Your task to perform on an android device: turn off picture-in-picture Image 0: 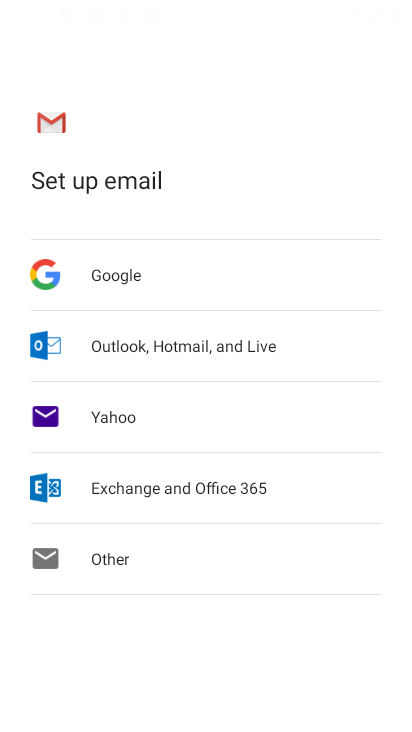
Step 0: press home button
Your task to perform on an android device: turn off picture-in-picture Image 1: 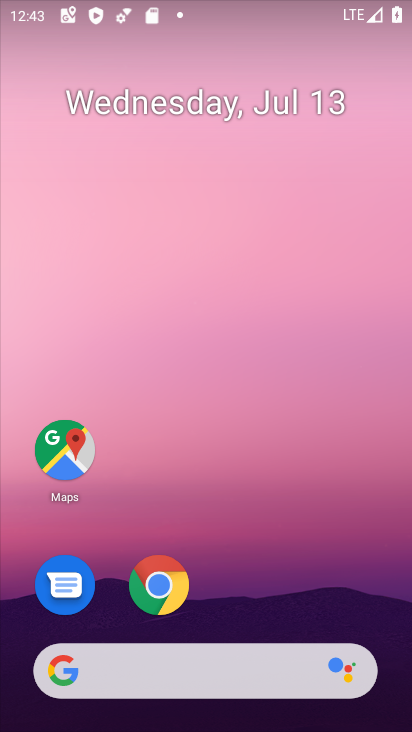
Step 1: drag from (177, 627) to (165, 194)
Your task to perform on an android device: turn off picture-in-picture Image 2: 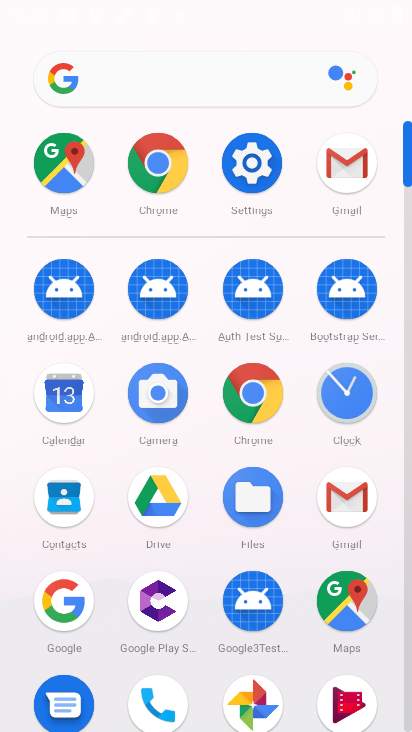
Step 2: click (255, 182)
Your task to perform on an android device: turn off picture-in-picture Image 3: 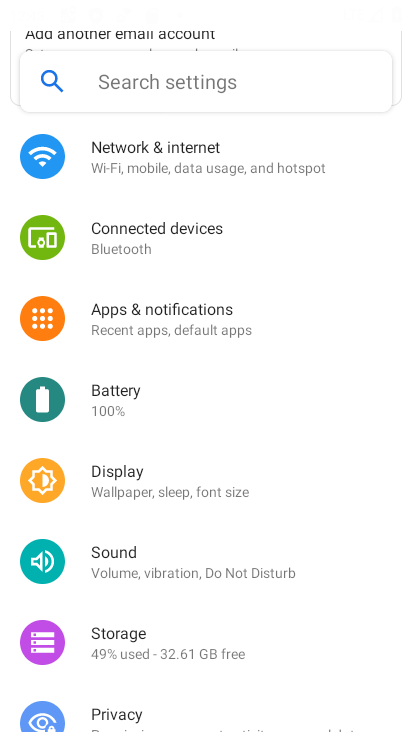
Step 3: click (147, 332)
Your task to perform on an android device: turn off picture-in-picture Image 4: 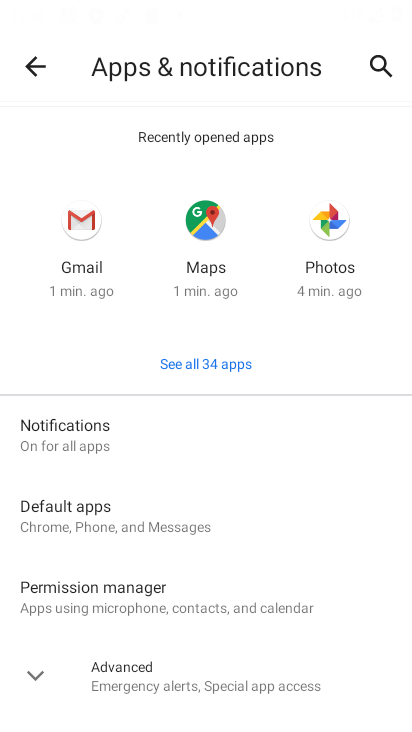
Step 4: click (65, 431)
Your task to perform on an android device: turn off picture-in-picture Image 5: 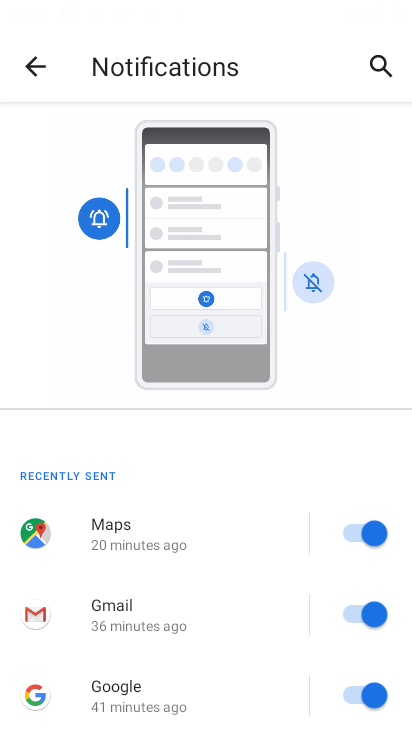
Step 5: click (43, 66)
Your task to perform on an android device: turn off picture-in-picture Image 6: 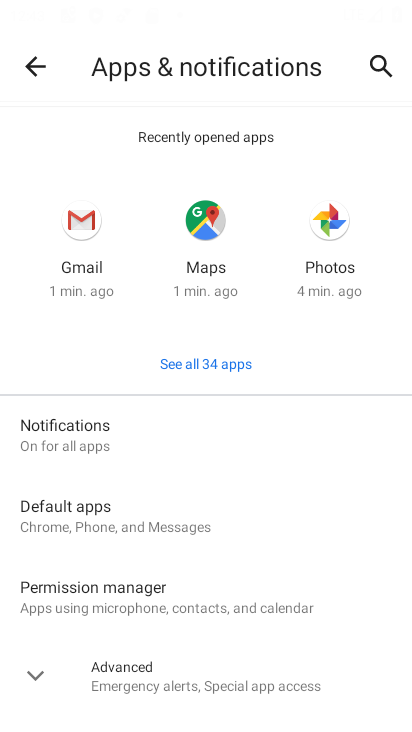
Step 6: click (150, 681)
Your task to perform on an android device: turn off picture-in-picture Image 7: 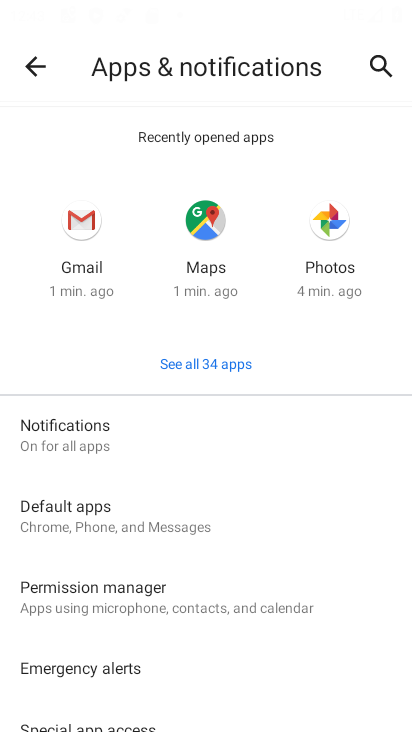
Step 7: drag from (173, 641) to (283, 51)
Your task to perform on an android device: turn off picture-in-picture Image 8: 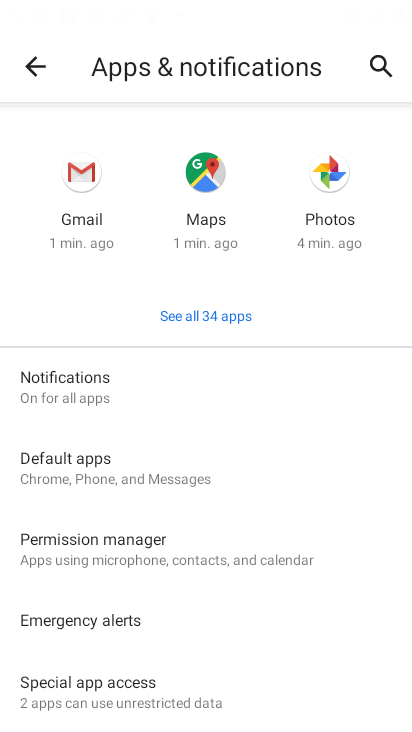
Step 8: click (85, 691)
Your task to perform on an android device: turn off picture-in-picture Image 9: 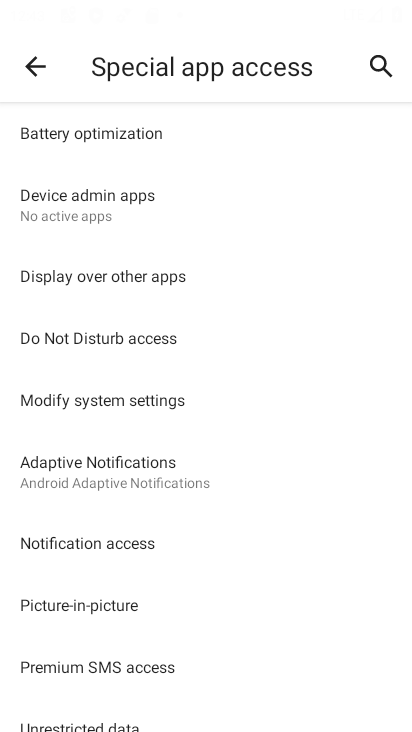
Step 9: click (119, 596)
Your task to perform on an android device: turn off picture-in-picture Image 10: 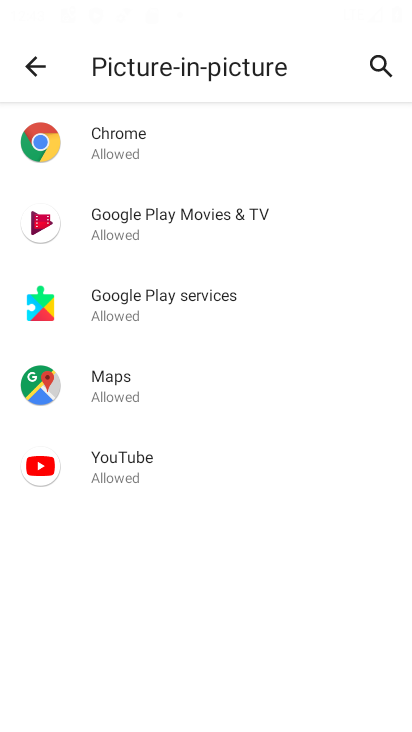
Step 10: click (89, 141)
Your task to perform on an android device: turn off picture-in-picture Image 11: 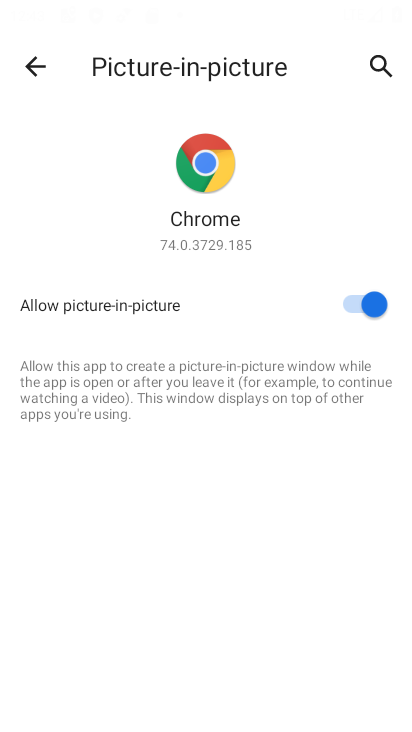
Step 11: click (346, 300)
Your task to perform on an android device: turn off picture-in-picture Image 12: 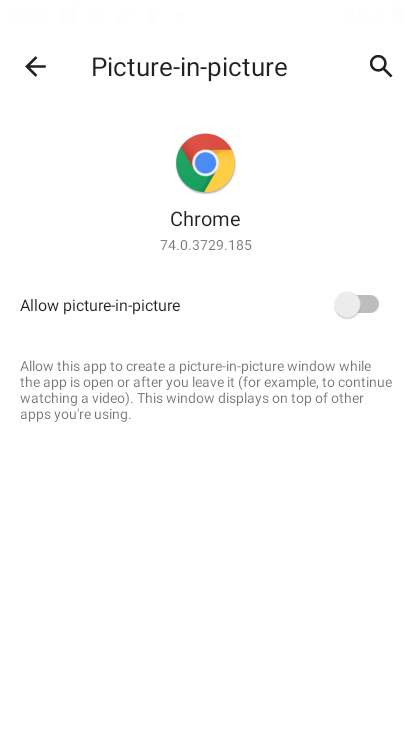
Step 12: task complete